Your task to perform on an android device: Go to ESPN.com Image 0: 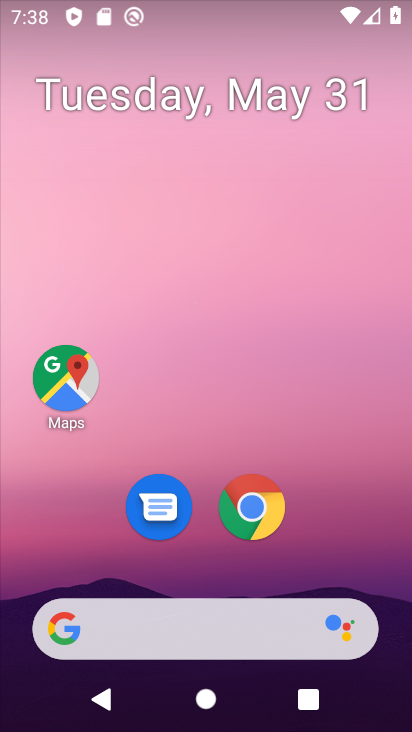
Step 0: click (247, 506)
Your task to perform on an android device: Go to ESPN.com Image 1: 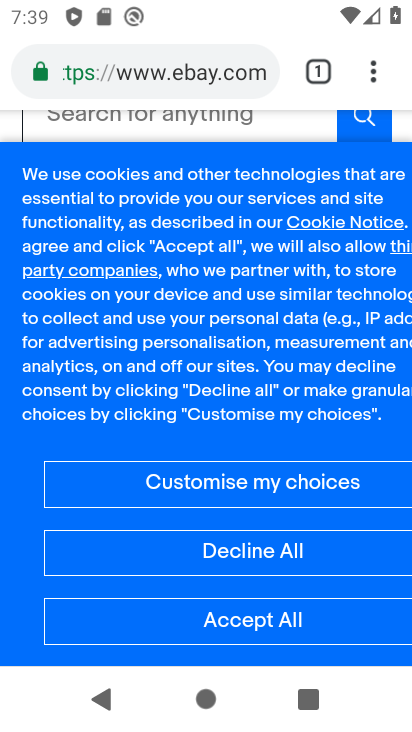
Step 1: click (191, 61)
Your task to perform on an android device: Go to ESPN.com Image 2: 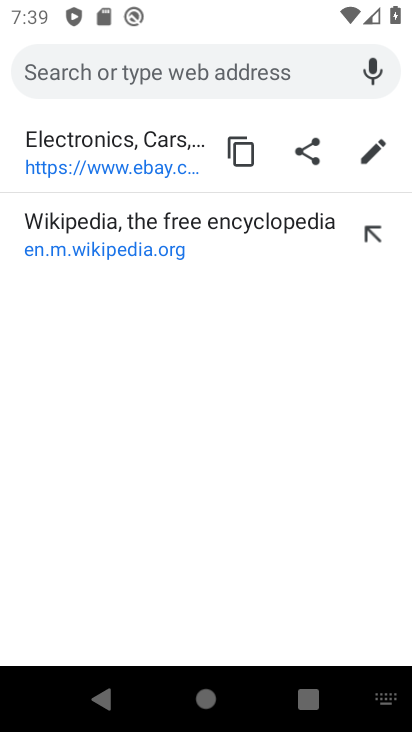
Step 2: type "espn.com"
Your task to perform on an android device: Go to ESPN.com Image 3: 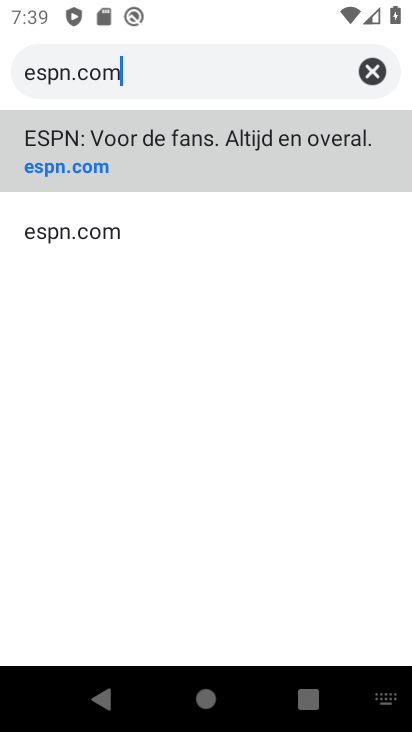
Step 3: click (66, 165)
Your task to perform on an android device: Go to ESPN.com Image 4: 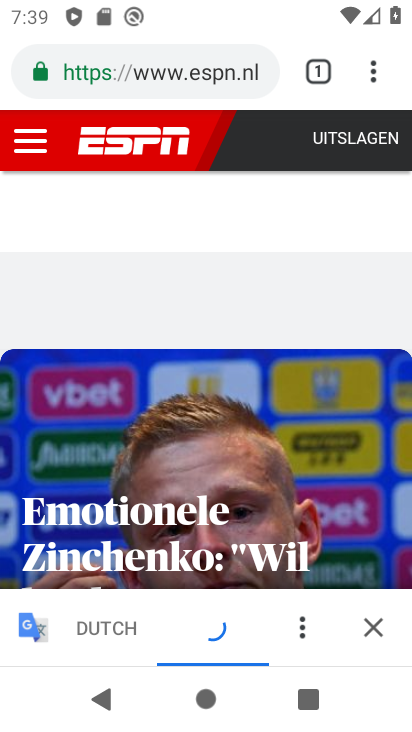
Step 4: click (372, 632)
Your task to perform on an android device: Go to ESPN.com Image 5: 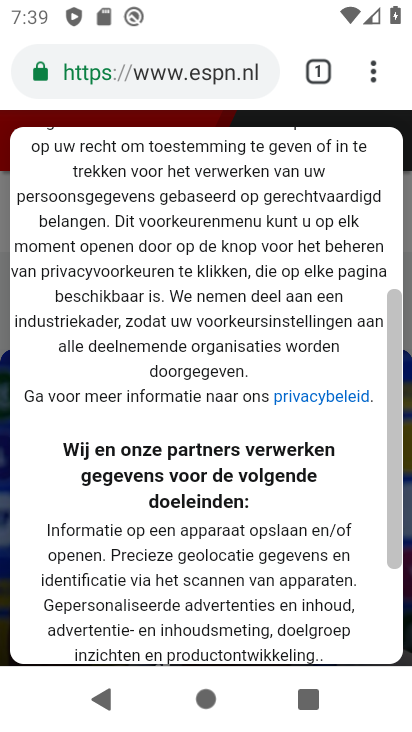
Step 5: task complete